Your task to perform on an android device: Show me productivity apps on the Play Store Image 0: 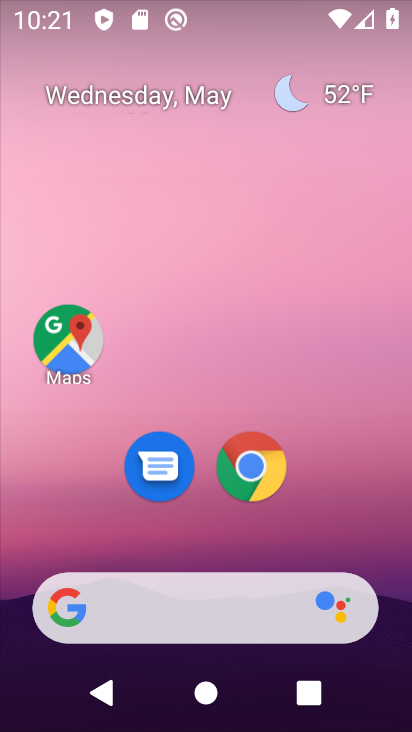
Step 0: drag from (205, 527) to (173, 331)
Your task to perform on an android device: Show me productivity apps on the Play Store Image 1: 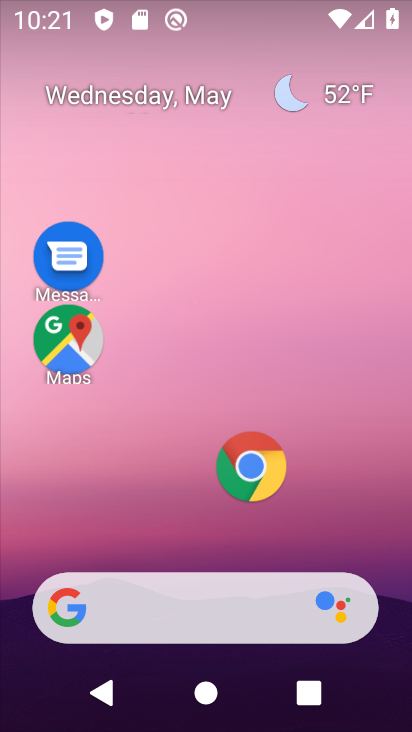
Step 1: drag from (215, 525) to (222, 88)
Your task to perform on an android device: Show me productivity apps on the Play Store Image 2: 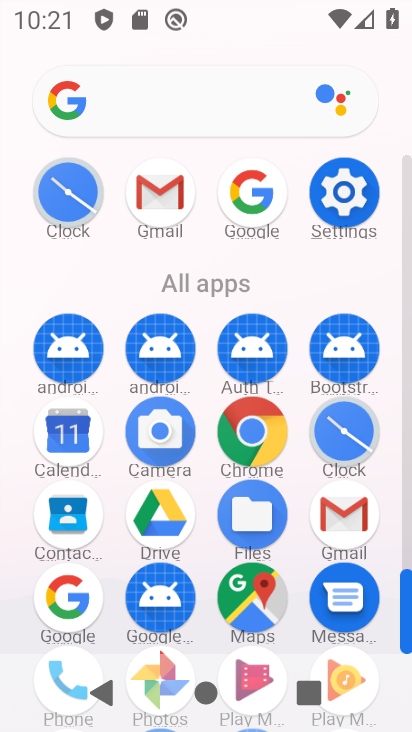
Step 2: drag from (203, 573) to (235, 96)
Your task to perform on an android device: Show me productivity apps on the Play Store Image 3: 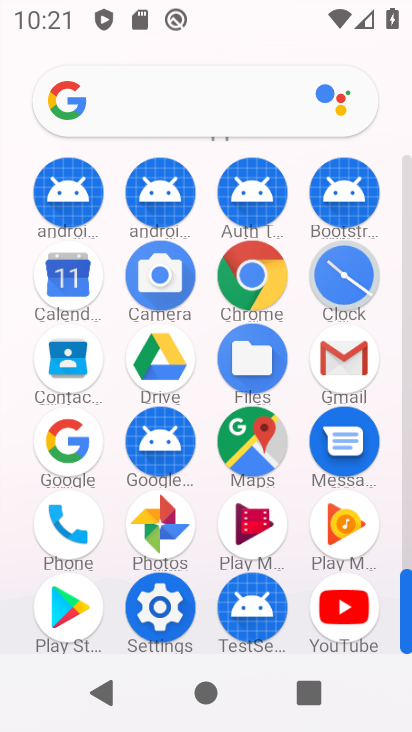
Step 3: click (60, 606)
Your task to perform on an android device: Show me productivity apps on the Play Store Image 4: 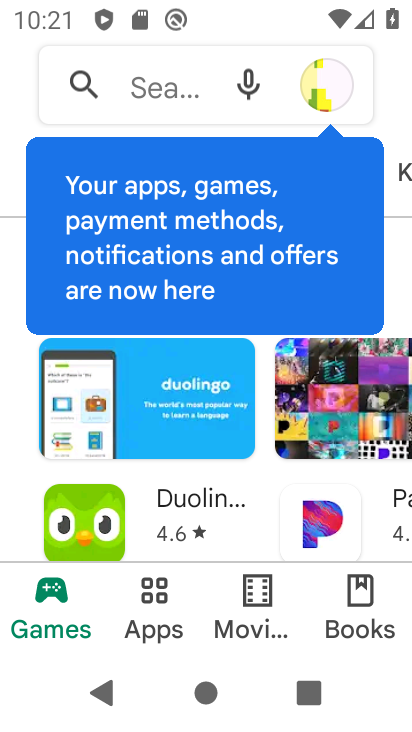
Step 4: click (161, 604)
Your task to perform on an android device: Show me productivity apps on the Play Store Image 5: 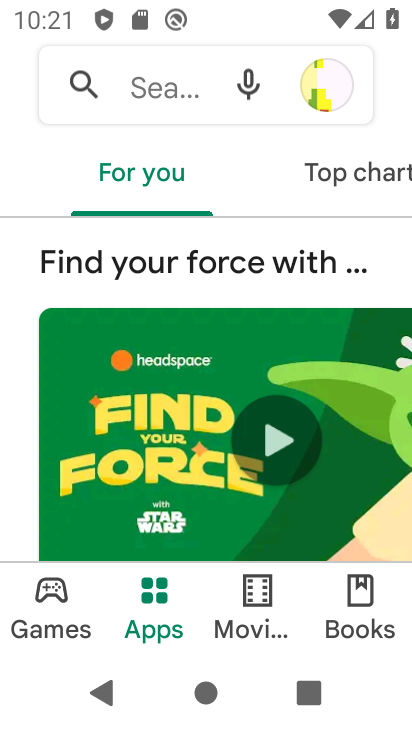
Step 5: task complete